Your task to perform on an android device: Open network settings Image 0: 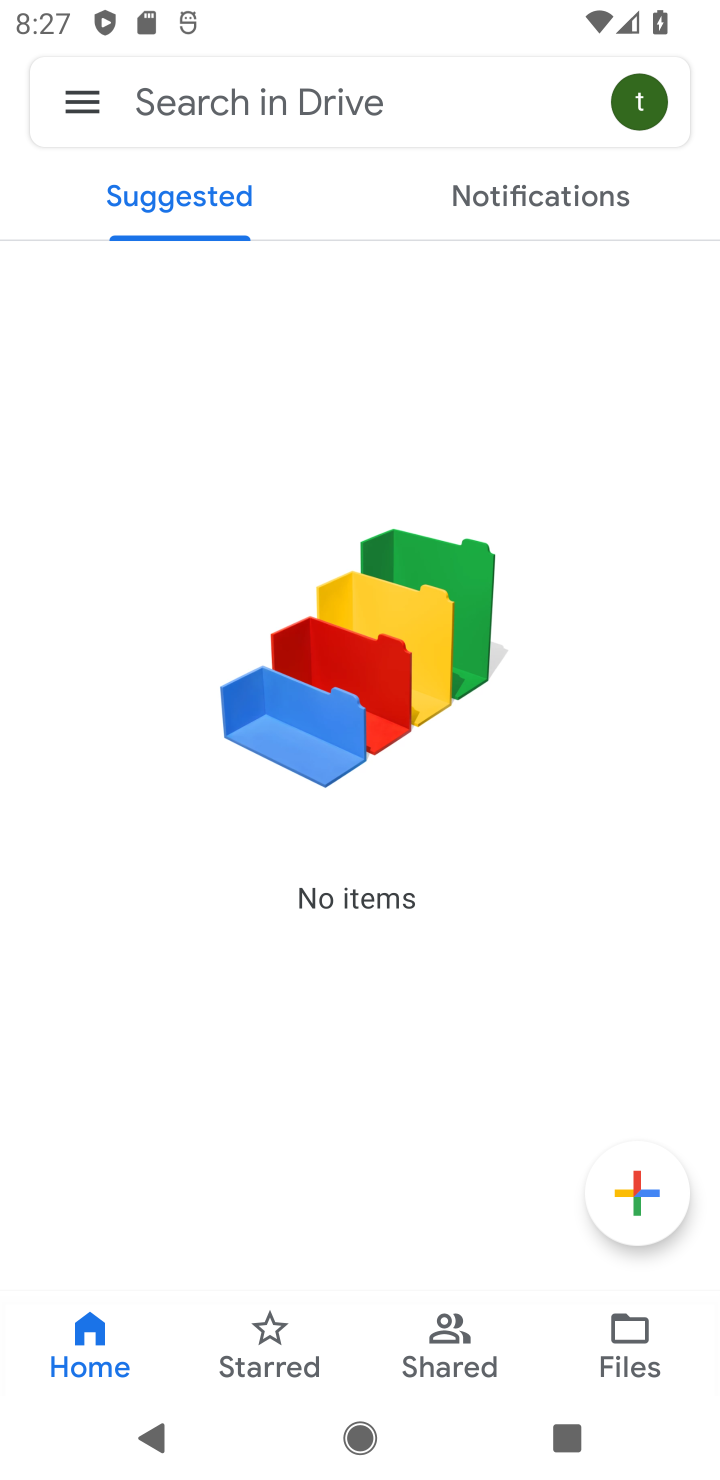
Step 0: press home button
Your task to perform on an android device: Open network settings Image 1: 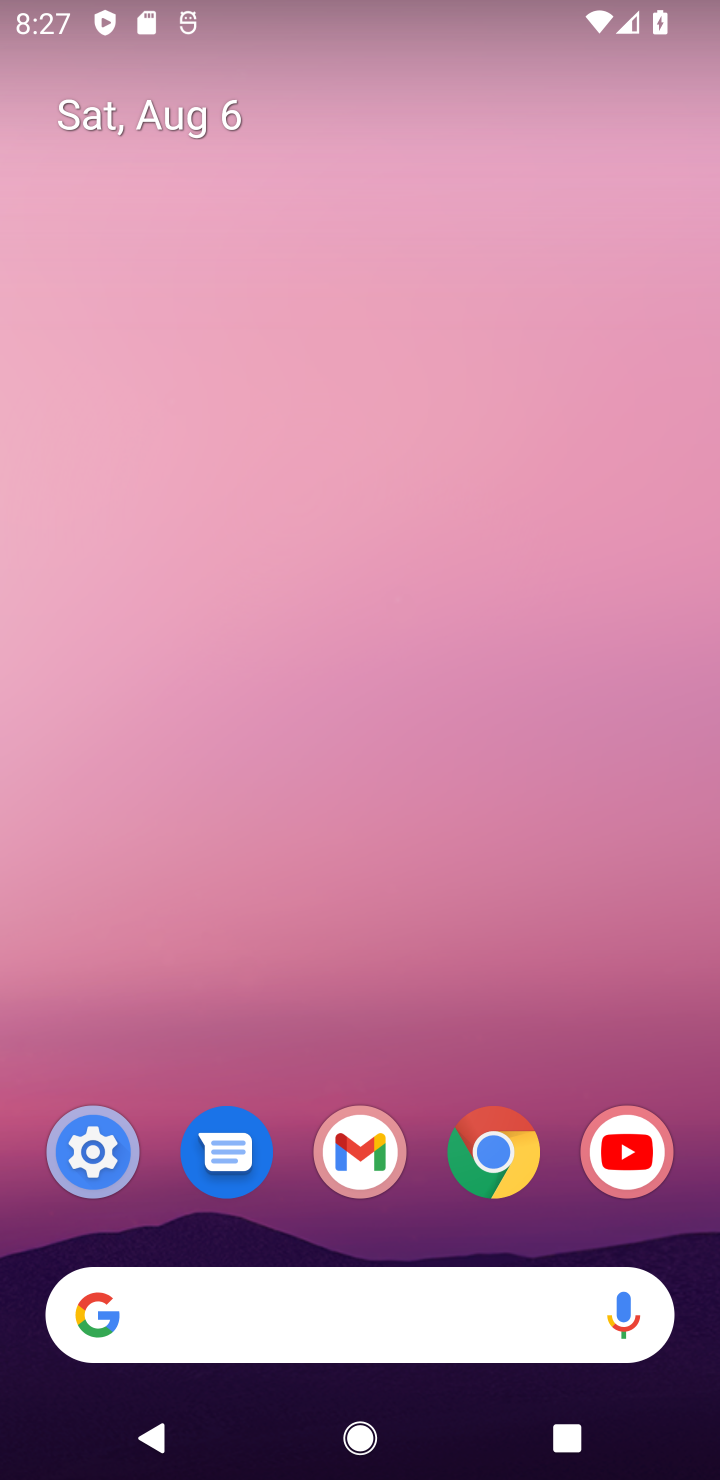
Step 1: drag from (525, 1040) to (477, 838)
Your task to perform on an android device: Open network settings Image 2: 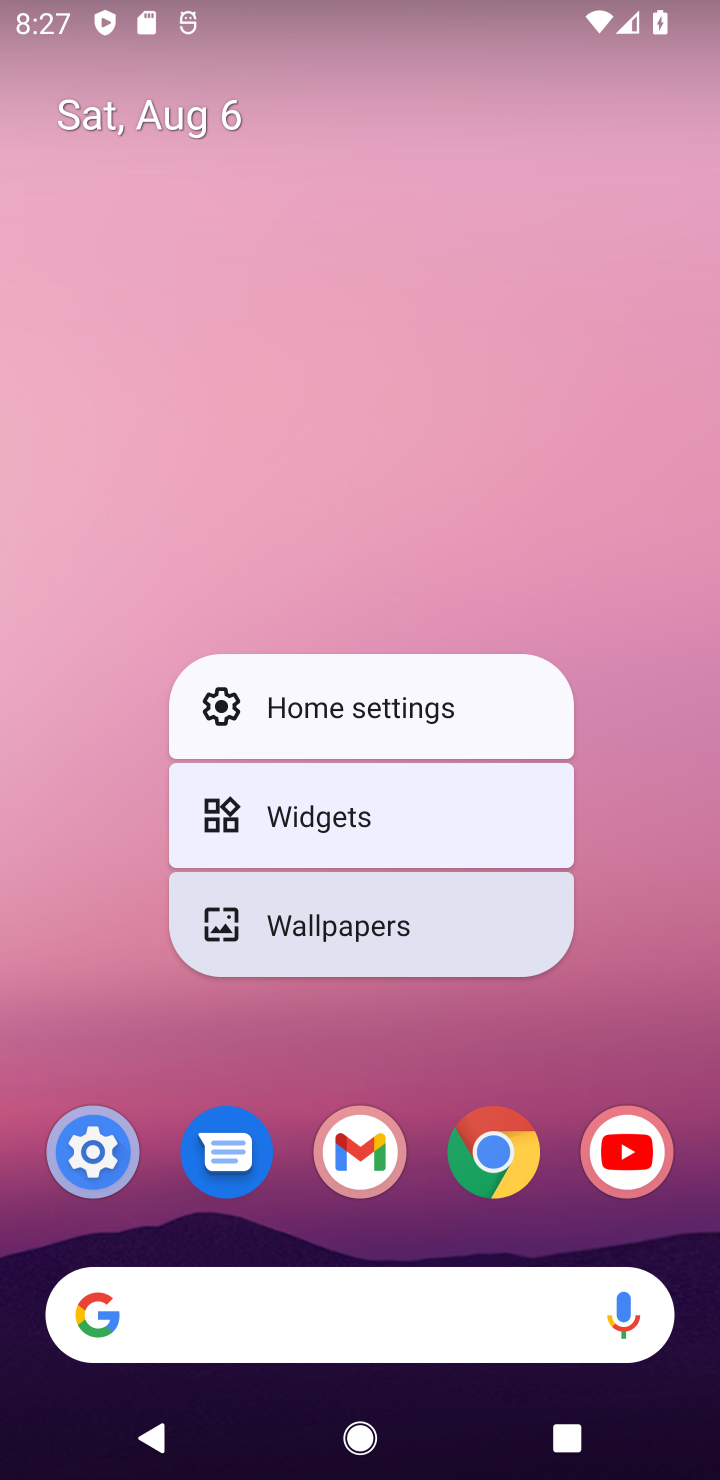
Step 2: click (91, 1137)
Your task to perform on an android device: Open network settings Image 3: 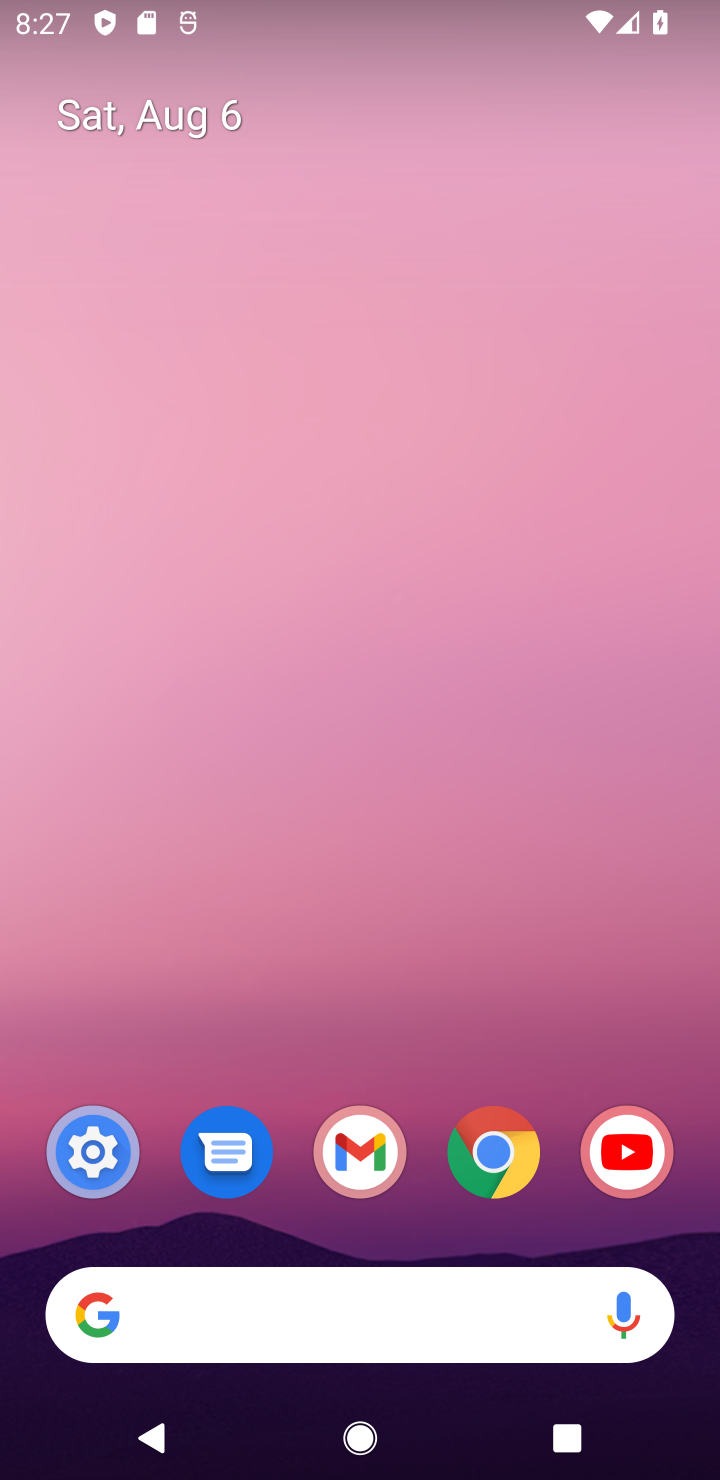
Step 3: click (91, 1137)
Your task to perform on an android device: Open network settings Image 4: 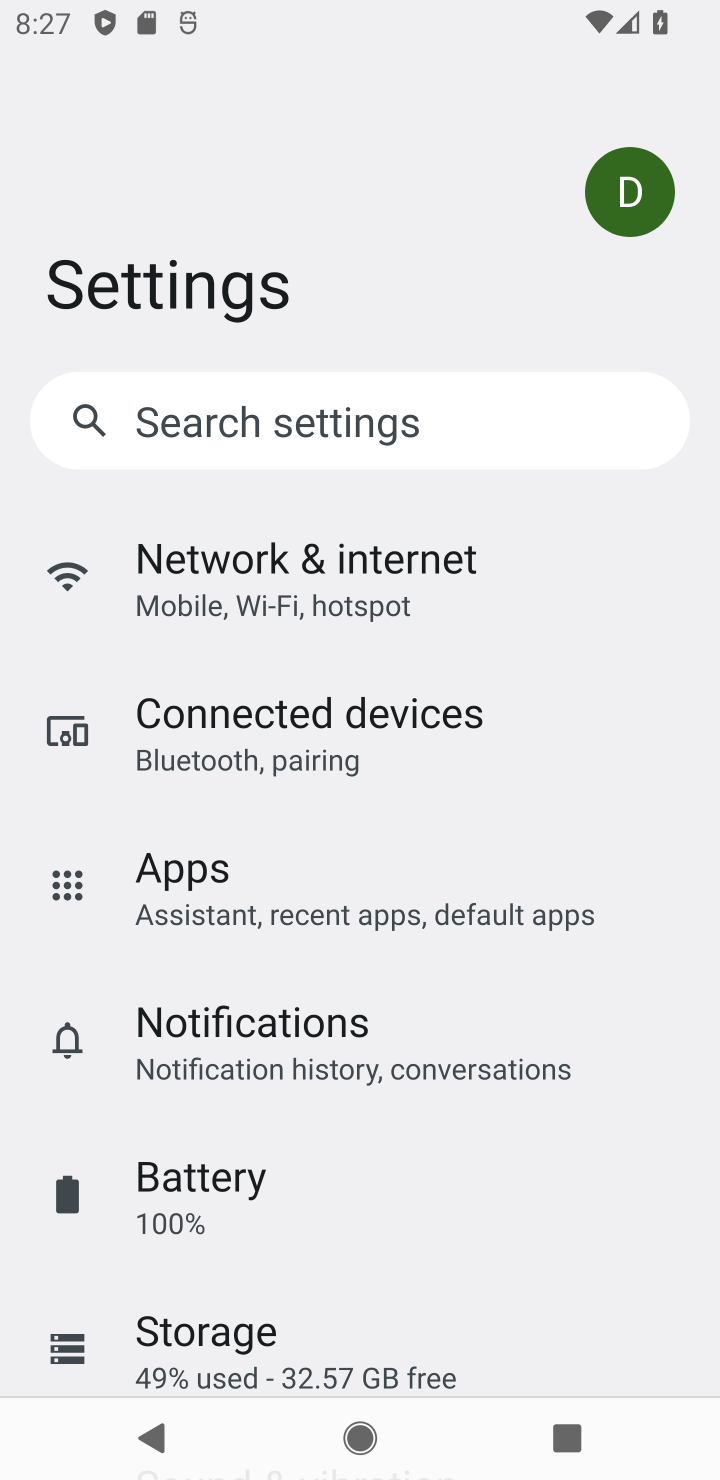
Step 4: click (332, 570)
Your task to perform on an android device: Open network settings Image 5: 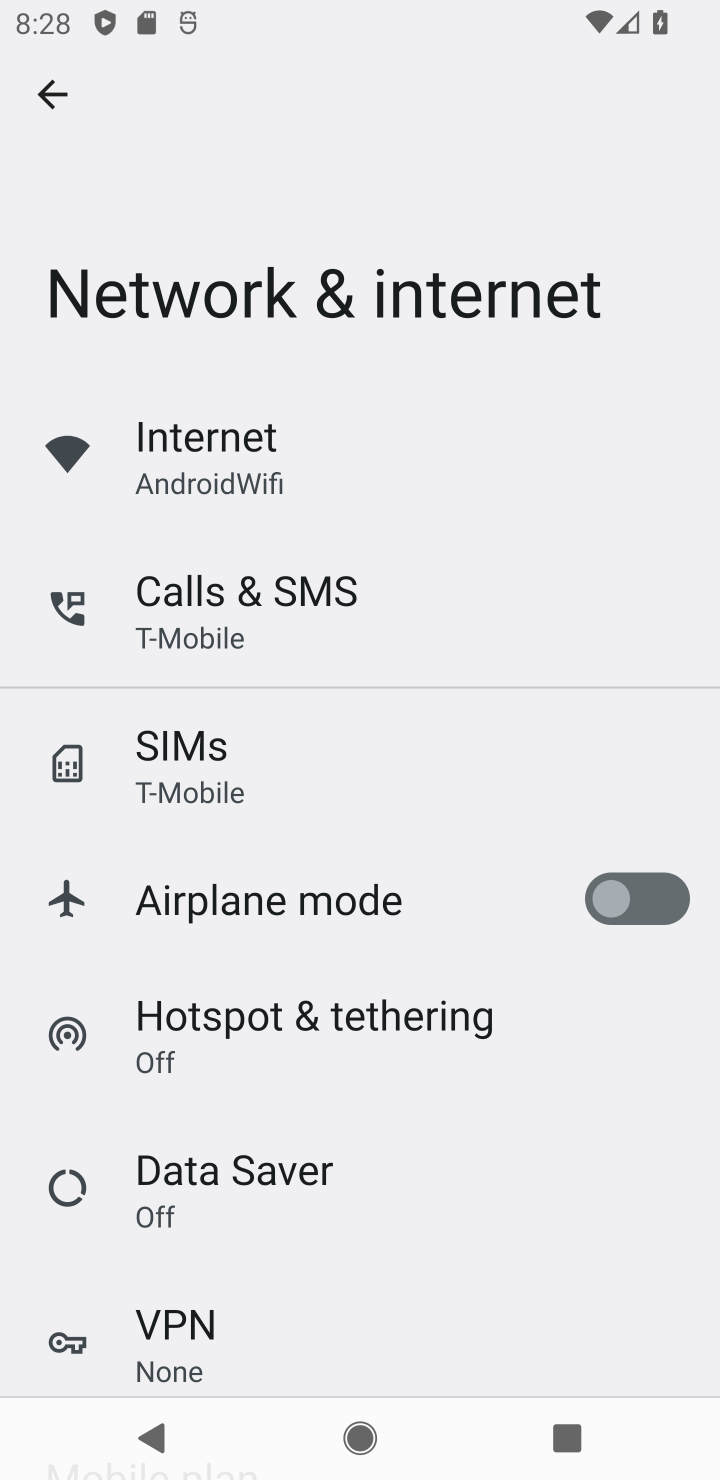
Step 5: task complete